Your task to perform on an android device: Open Google Chrome and click the shortcut for Amazon.com Image 0: 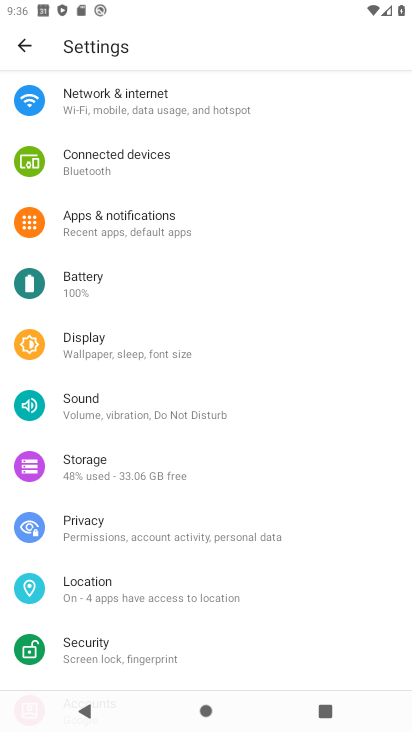
Step 0: press home button
Your task to perform on an android device: Open Google Chrome and click the shortcut for Amazon.com Image 1: 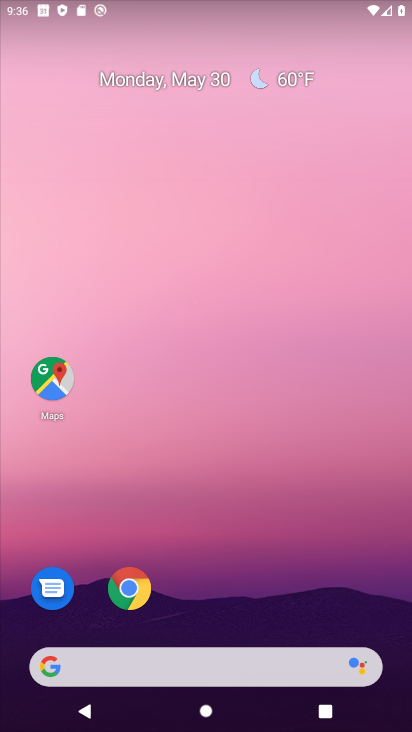
Step 1: click (128, 585)
Your task to perform on an android device: Open Google Chrome and click the shortcut for Amazon.com Image 2: 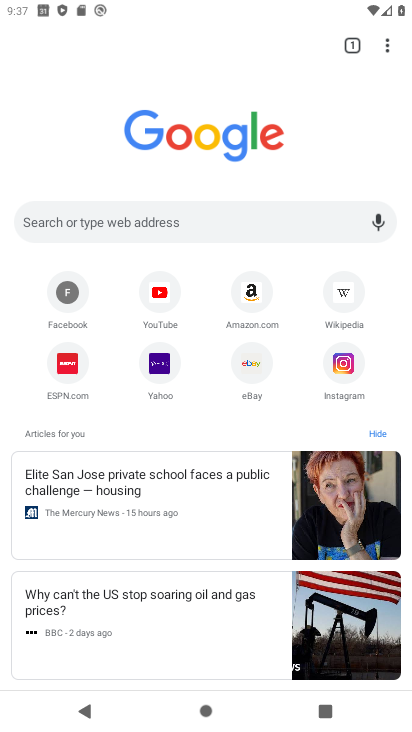
Step 2: click (249, 297)
Your task to perform on an android device: Open Google Chrome and click the shortcut for Amazon.com Image 3: 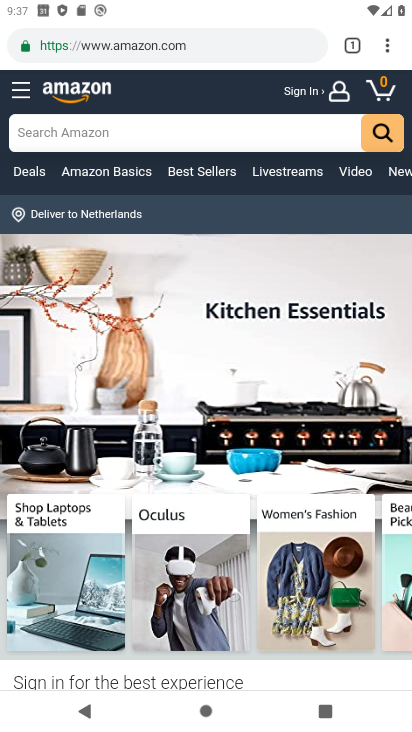
Step 3: task complete